Your task to perform on an android device: Go to ESPN.com Image 0: 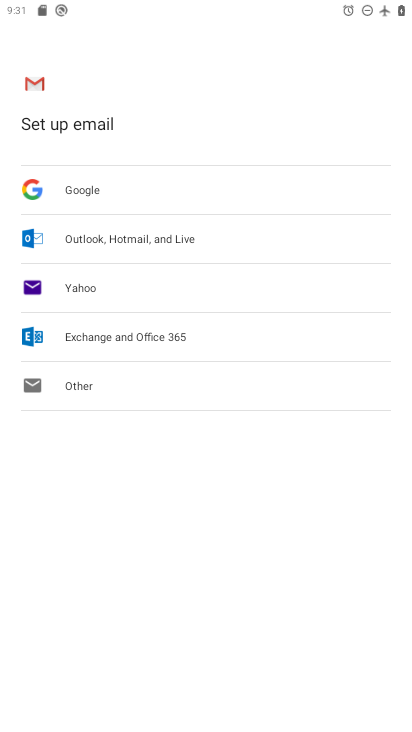
Step 0: press home button
Your task to perform on an android device: Go to ESPN.com Image 1: 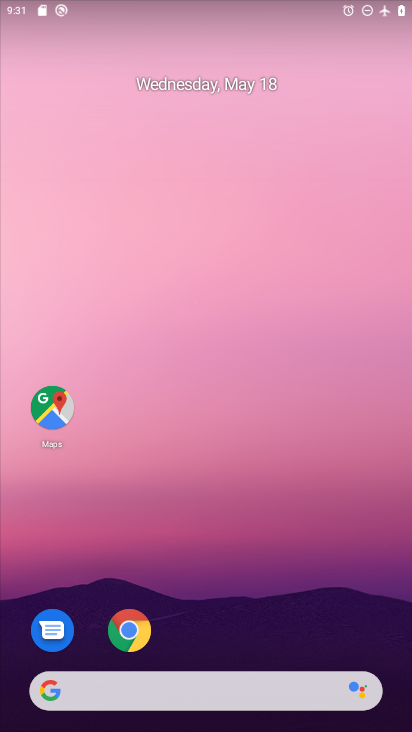
Step 1: drag from (191, 652) to (112, 84)
Your task to perform on an android device: Go to ESPN.com Image 2: 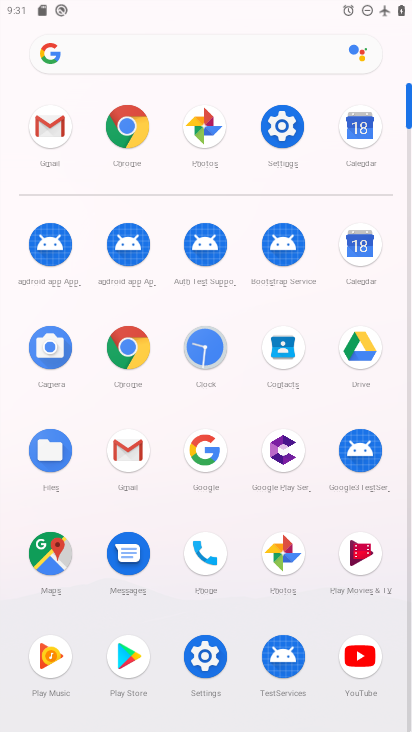
Step 2: click (214, 451)
Your task to perform on an android device: Go to ESPN.com Image 3: 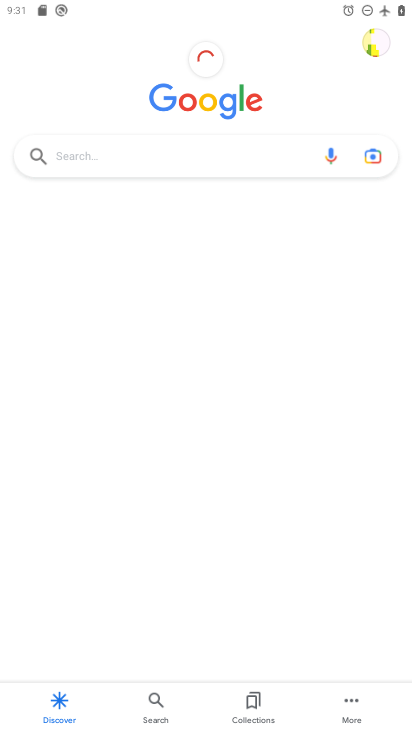
Step 3: click (128, 159)
Your task to perform on an android device: Go to ESPN.com Image 4: 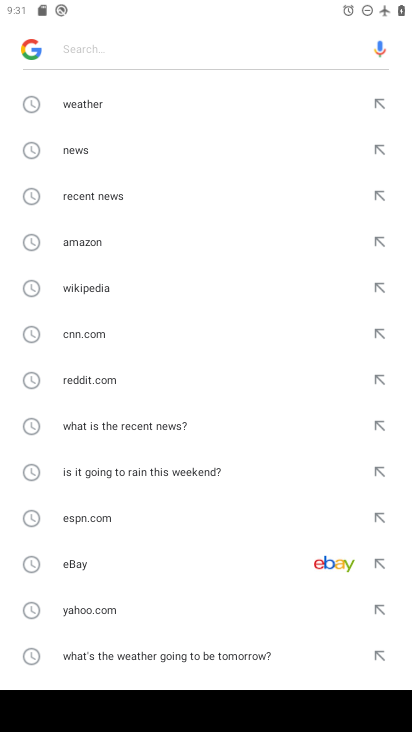
Step 4: click (82, 522)
Your task to perform on an android device: Go to ESPN.com Image 5: 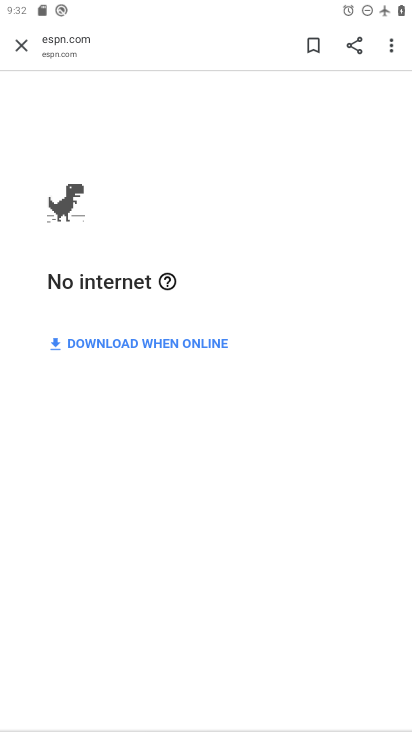
Step 5: task complete